Your task to perform on an android device: empty trash in the gmail app Image 0: 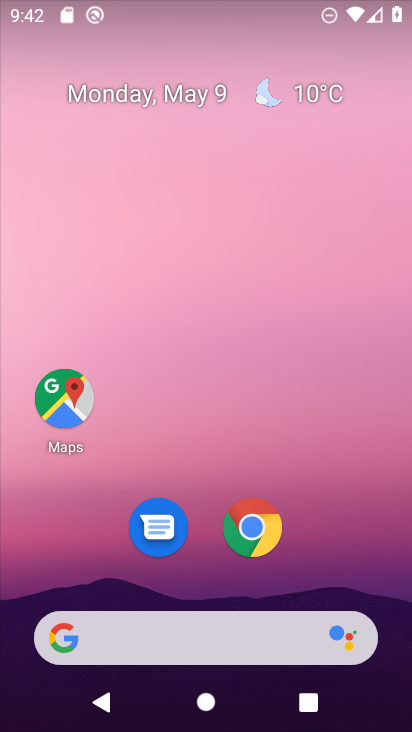
Step 0: drag from (196, 575) to (233, 241)
Your task to perform on an android device: empty trash in the gmail app Image 1: 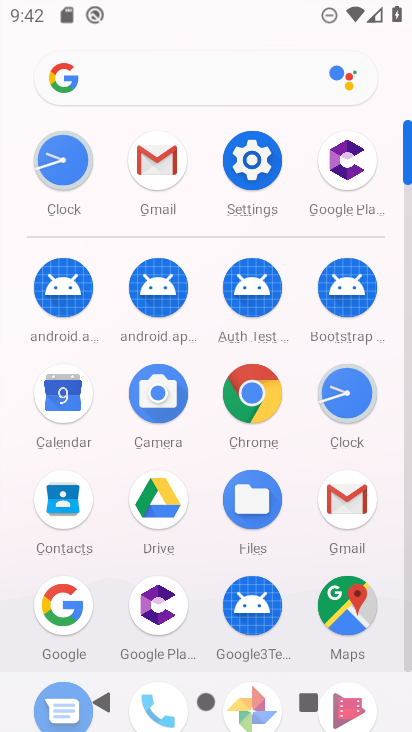
Step 1: click (338, 503)
Your task to perform on an android device: empty trash in the gmail app Image 2: 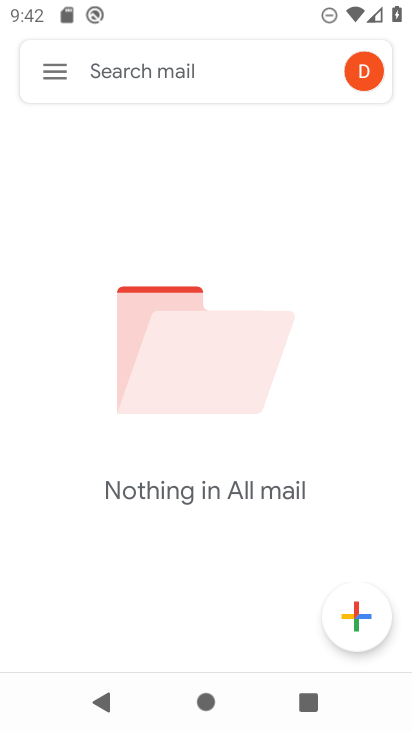
Step 2: click (61, 83)
Your task to perform on an android device: empty trash in the gmail app Image 3: 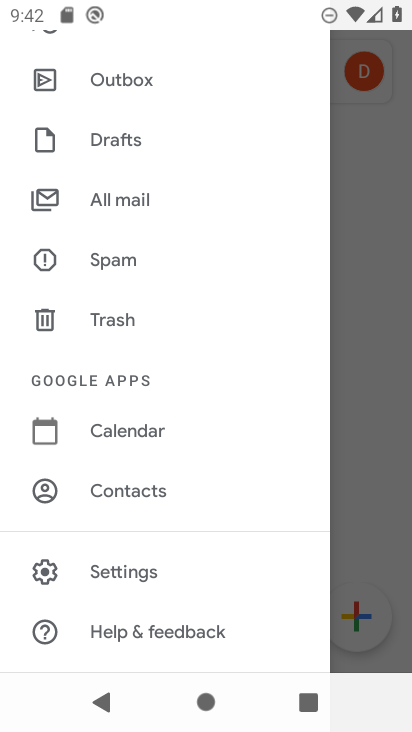
Step 3: click (122, 319)
Your task to perform on an android device: empty trash in the gmail app Image 4: 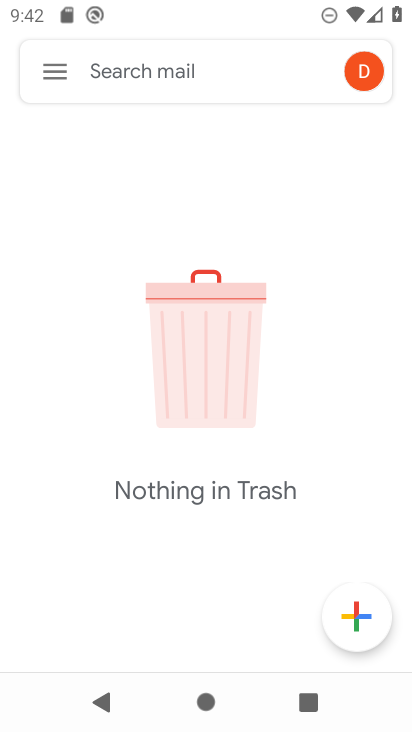
Step 4: task complete